Your task to perform on an android device: Open Maps and search for coffee Image 0: 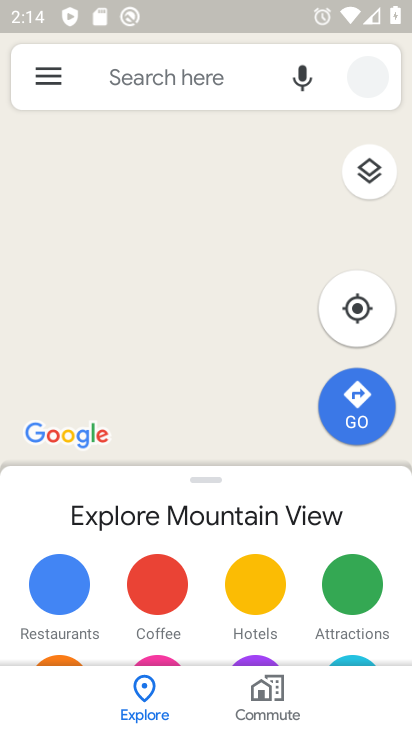
Step 0: press home button
Your task to perform on an android device: Open Maps and search for coffee Image 1: 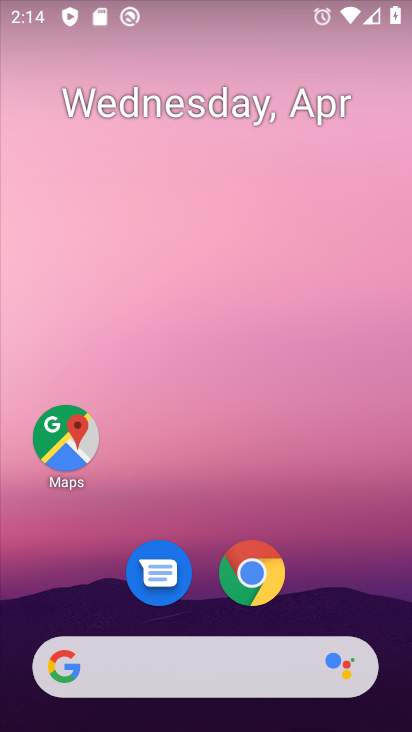
Step 1: drag from (347, 582) to (322, 109)
Your task to perform on an android device: Open Maps and search for coffee Image 2: 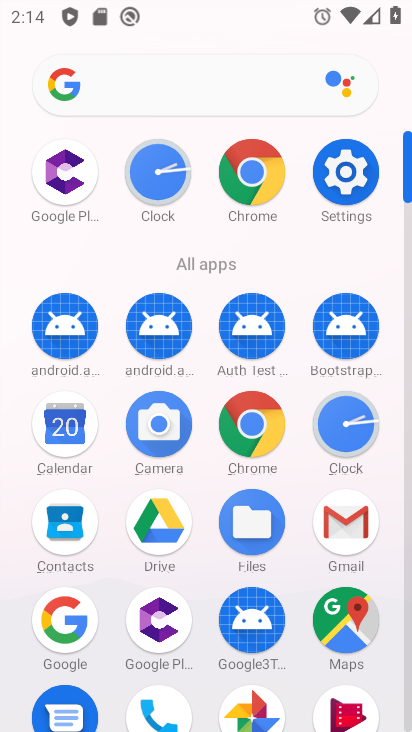
Step 2: click (336, 622)
Your task to perform on an android device: Open Maps and search for coffee Image 3: 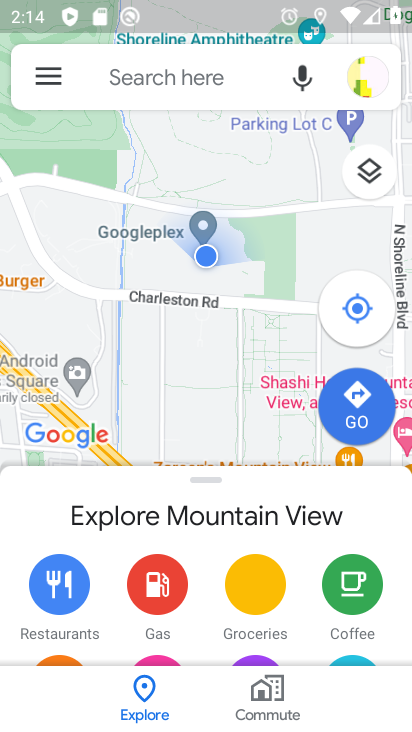
Step 3: click (186, 81)
Your task to perform on an android device: Open Maps and search for coffee Image 4: 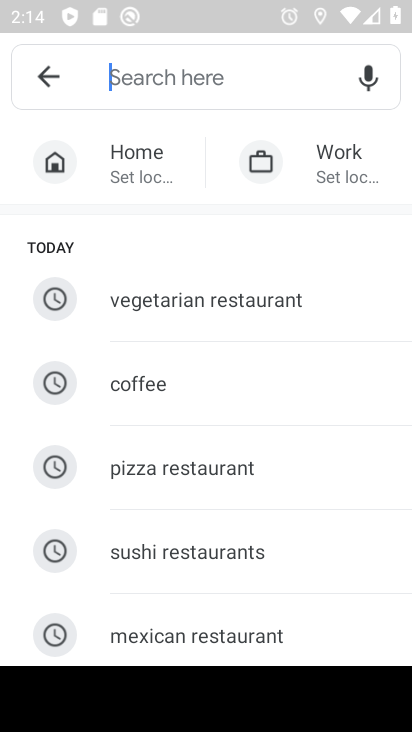
Step 4: type "coffee "
Your task to perform on an android device: Open Maps and search for coffee Image 5: 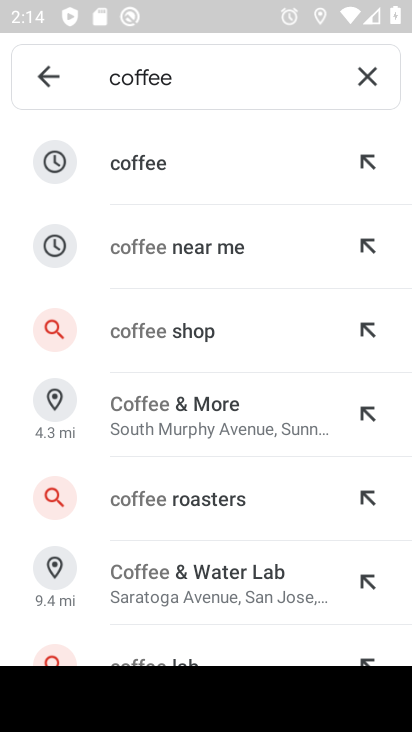
Step 5: click (146, 175)
Your task to perform on an android device: Open Maps and search for coffee Image 6: 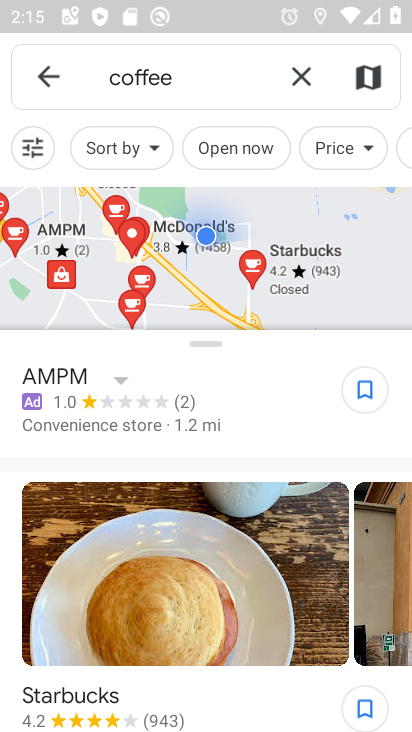
Step 6: task complete